Your task to perform on an android device: toggle notifications settings in the gmail app Image 0: 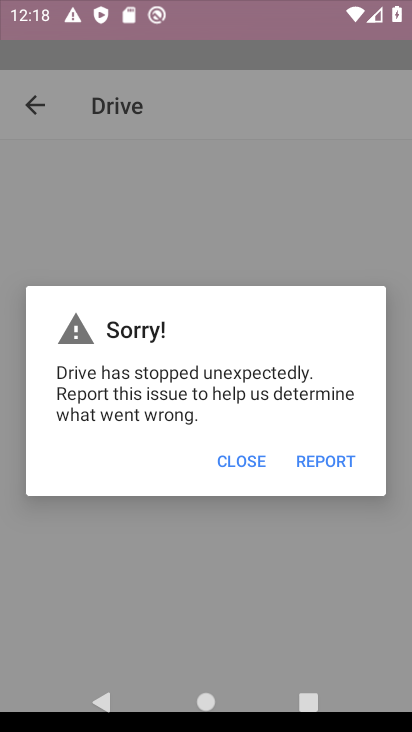
Step 0: click (331, 398)
Your task to perform on an android device: toggle notifications settings in the gmail app Image 1: 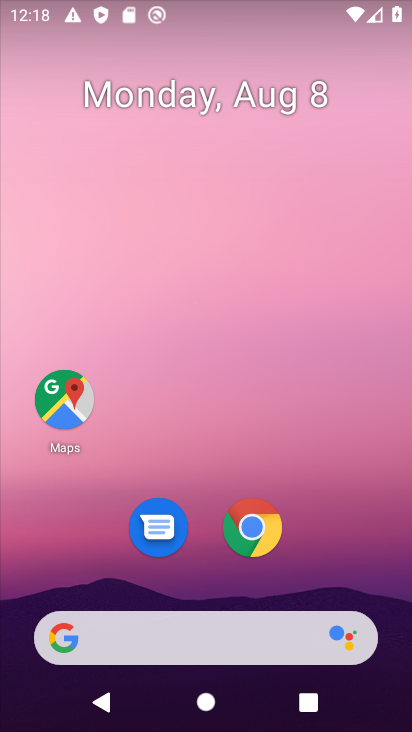
Step 1: drag from (326, 452) to (306, 180)
Your task to perform on an android device: toggle notifications settings in the gmail app Image 2: 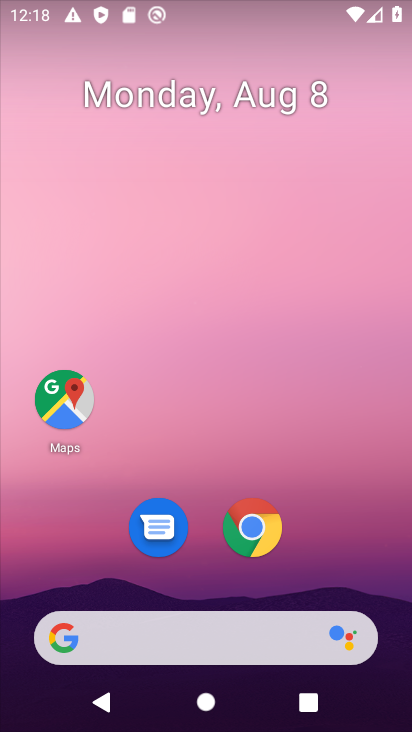
Step 2: drag from (215, 469) to (239, 95)
Your task to perform on an android device: toggle notifications settings in the gmail app Image 3: 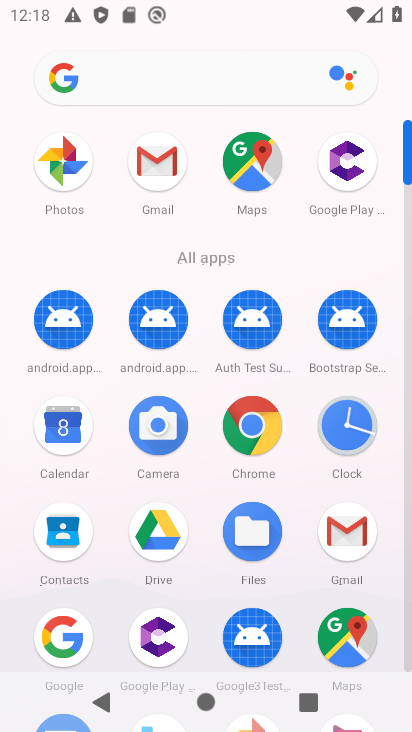
Step 3: drag from (300, 611) to (338, 240)
Your task to perform on an android device: toggle notifications settings in the gmail app Image 4: 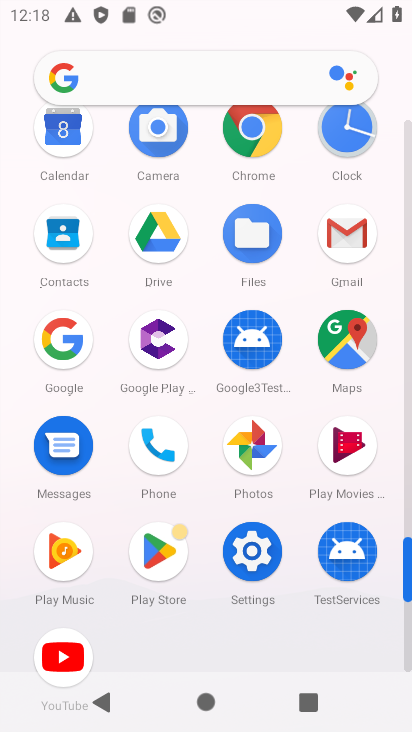
Step 4: click (350, 242)
Your task to perform on an android device: toggle notifications settings in the gmail app Image 5: 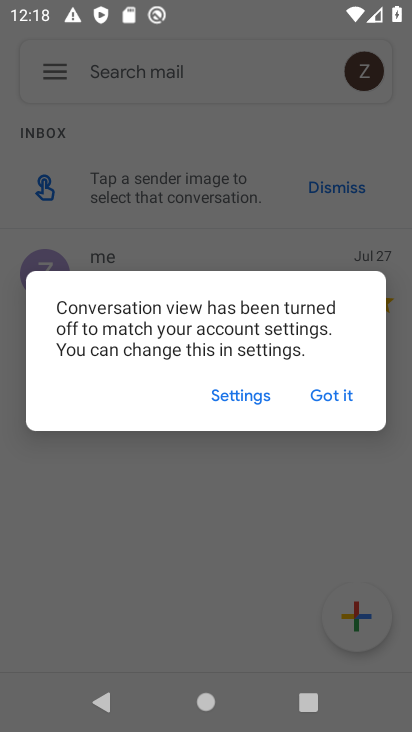
Step 5: task complete